Your task to perform on an android device: check battery use Image 0: 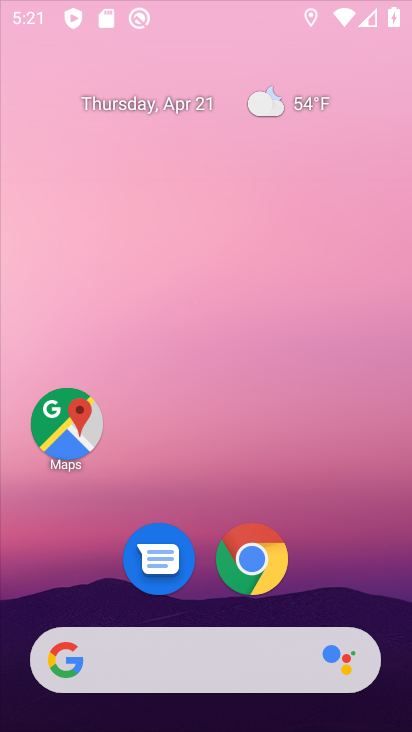
Step 0: drag from (371, 491) to (365, 51)
Your task to perform on an android device: check battery use Image 1: 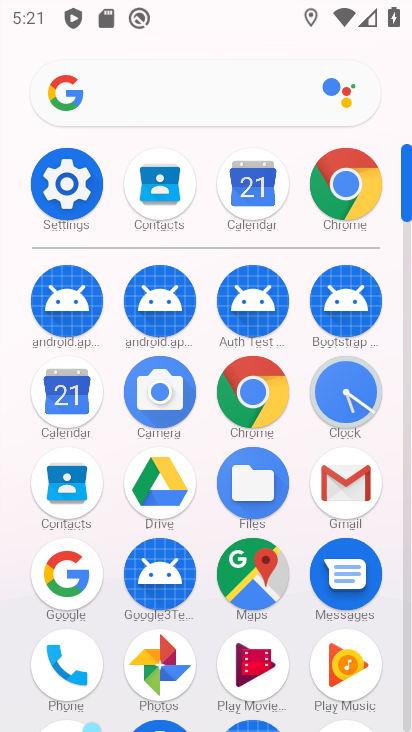
Step 1: click (247, 568)
Your task to perform on an android device: check battery use Image 2: 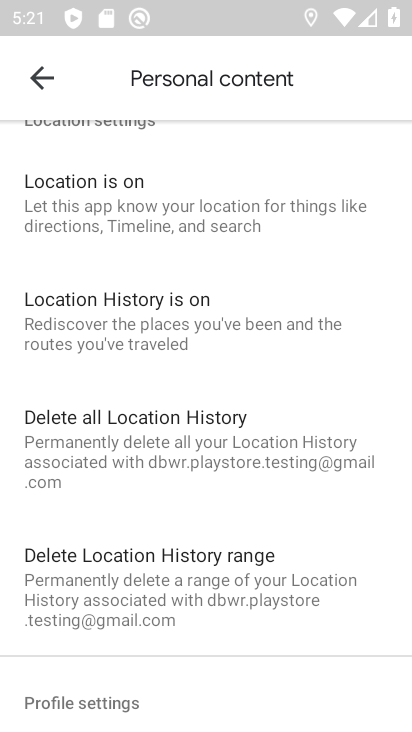
Step 2: drag from (255, 541) to (319, 112)
Your task to perform on an android device: check battery use Image 3: 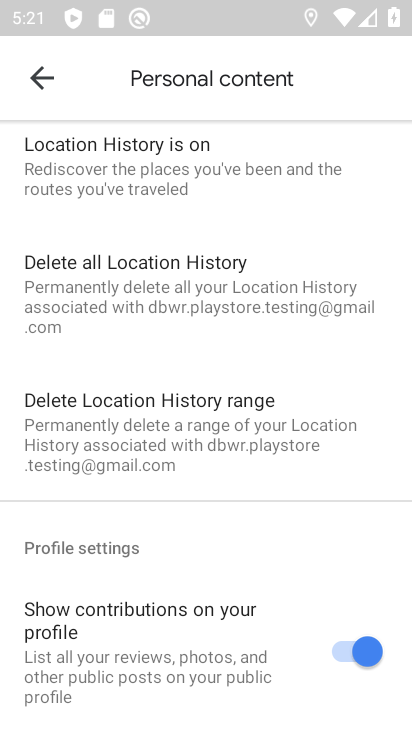
Step 3: drag from (281, 315) to (265, 582)
Your task to perform on an android device: check battery use Image 4: 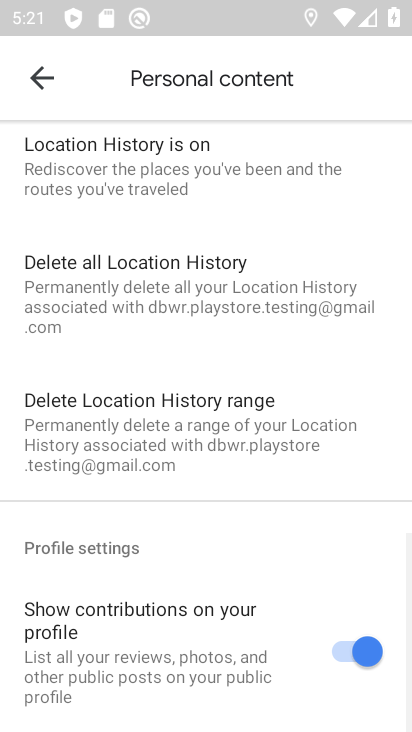
Step 4: press home button
Your task to perform on an android device: check battery use Image 5: 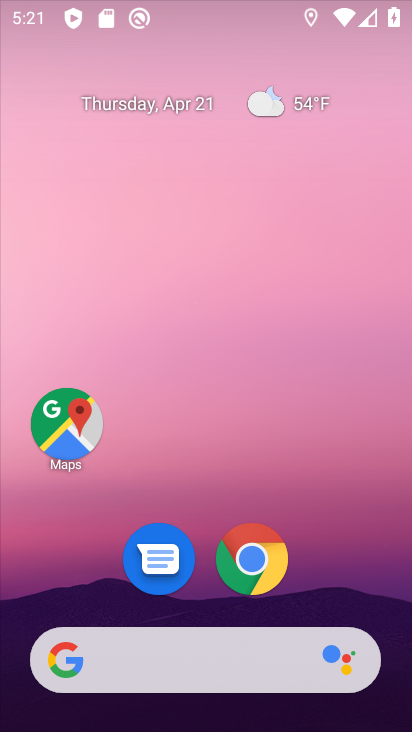
Step 5: drag from (345, 477) to (364, 8)
Your task to perform on an android device: check battery use Image 6: 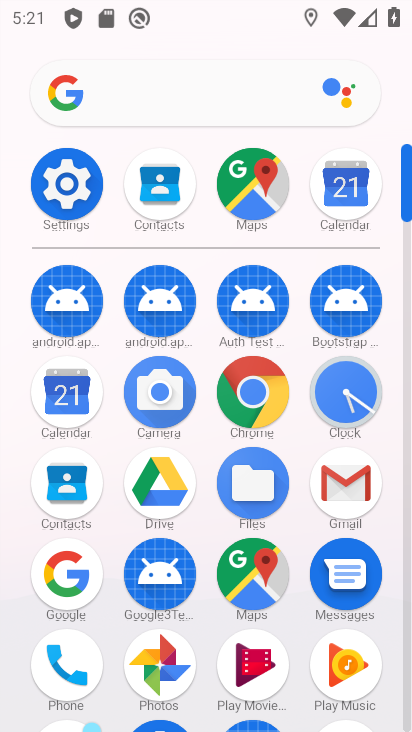
Step 6: click (67, 278)
Your task to perform on an android device: check battery use Image 7: 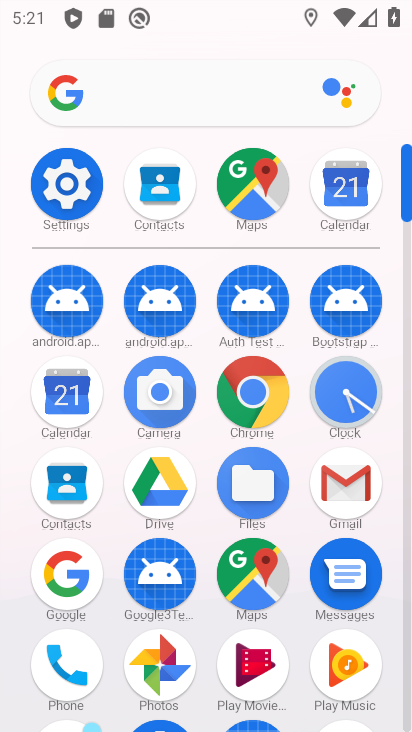
Step 7: click (51, 202)
Your task to perform on an android device: check battery use Image 8: 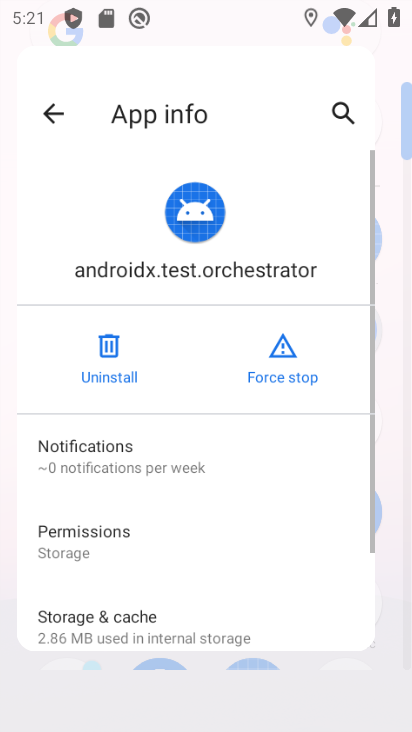
Step 8: click (58, 187)
Your task to perform on an android device: check battery use Image 9: 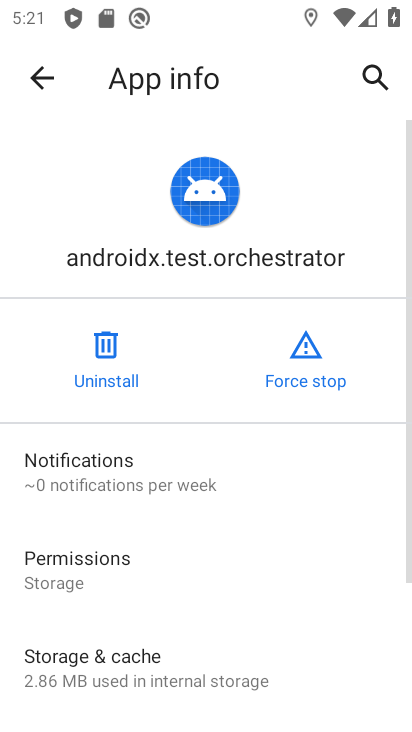
Step 9: drag from (176, 591) to (287, 117)
Your task to perform on an android device: check battery use Image 10: 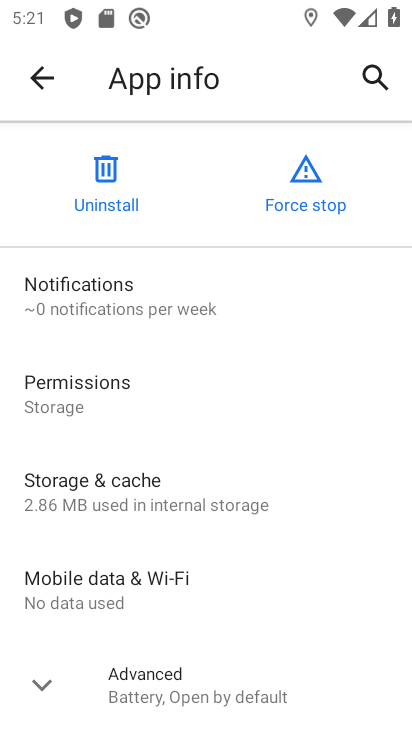
Step 10: click (38, 89)
Your task to perform on an android device: check battery use Image 11: 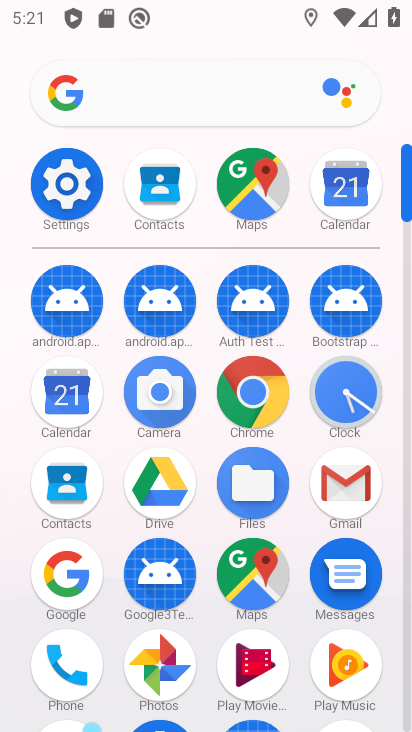
Step 11: click (77, 168)
Your task to perform on an android device: check battery use Image 12: 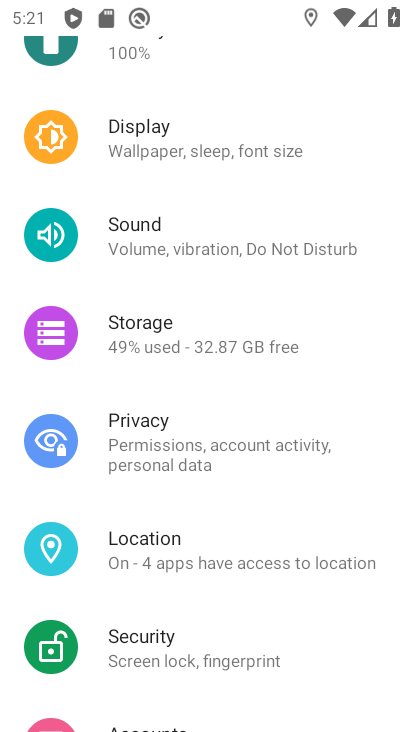
Step 12: drag from (207, 661) to (338, 224)
Your task to perform on an android device: check battery use Image 13: 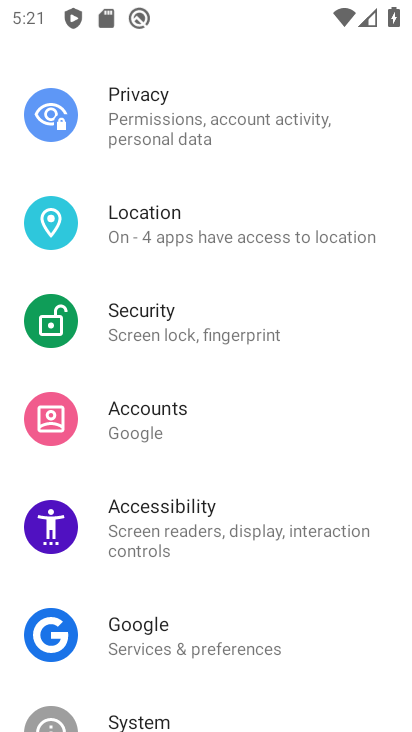
Step 13: drag from (244, 537) to (266, 172)
Your task to perform on an android device: check battery use Image 14: 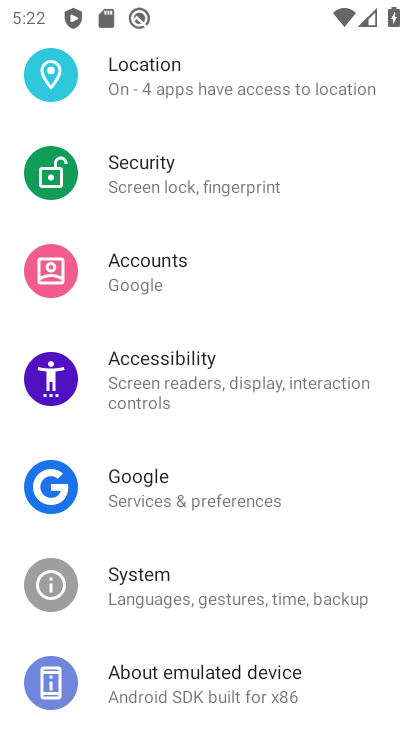
Step 14: drag from (209, 310) to (199, 582)
Your task to perform on an android device: check battery use Image 15: 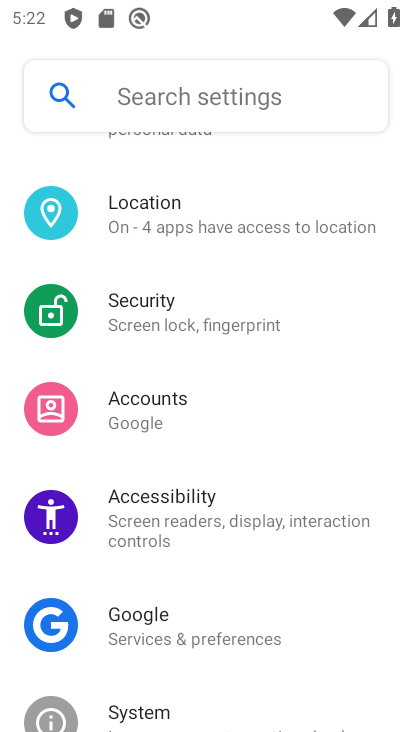
Step 15: drag from (227, 290) to (213, 636)
Your task to perform on an android device: check battery use Image 16: 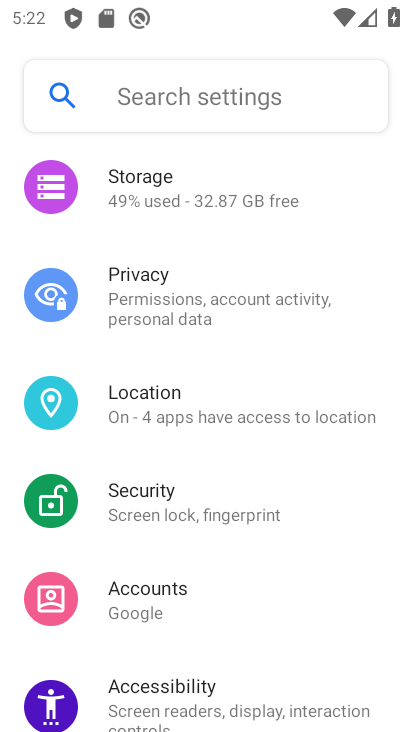
Step 16: drag from (281, 221) to (219, 691)
Your task to perform on an android device: check battery use Image 17: 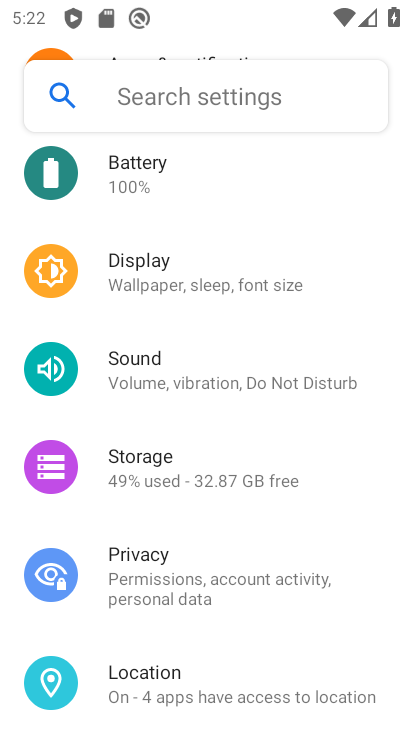
Step 17: drag from (303, 236) to (221, 661)
Your task to perform on an android device: check battery use Image 18: 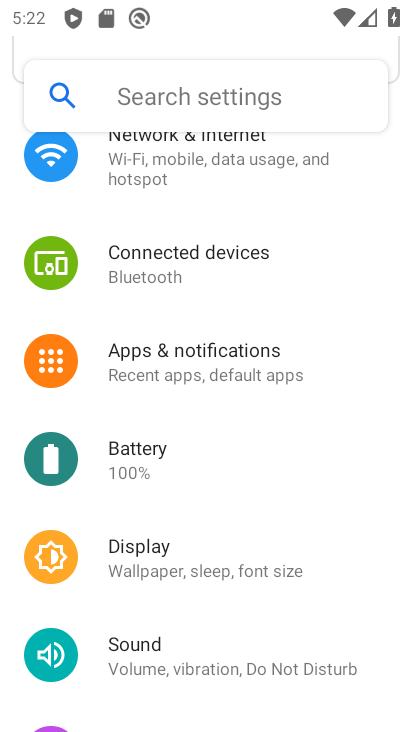
Step 18: click (173, 462)
Your task to perform on an android device: check battery use Image 19: 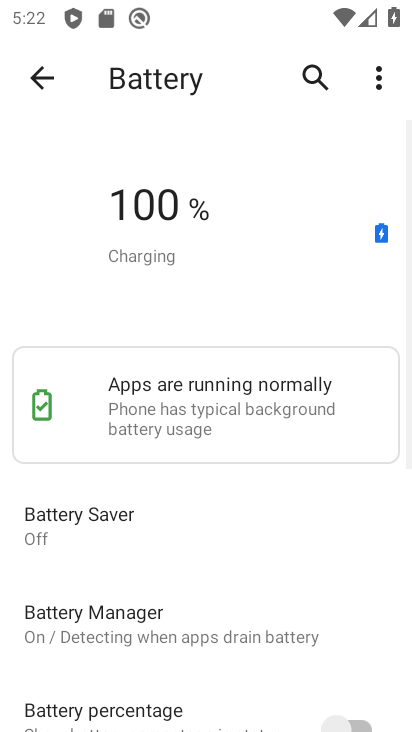
Step 19: task complete